Your task to perform on an android device: Open sound settings Image 0: 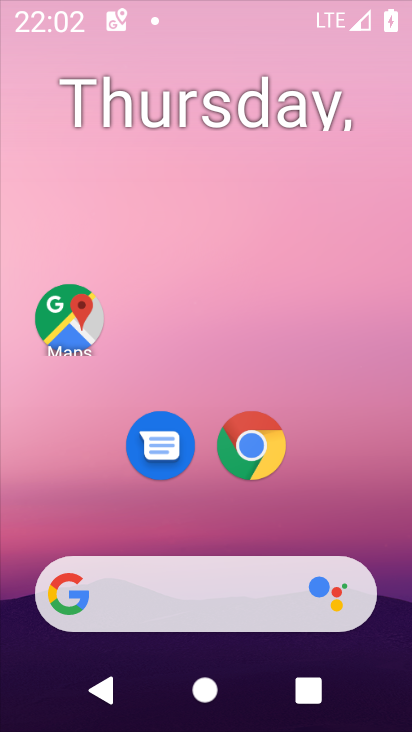
Step 0: drag from (197, 525) to (221, 173)
Your task to perform on an android device: Open sound settings Image 1: 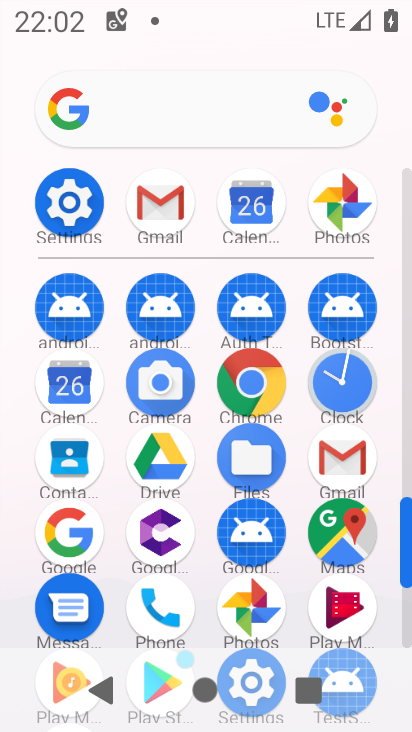
Step 1: drag from (205, 274) to (222, 56)
Your task to perform on an android device: Open sound settings Image 2: 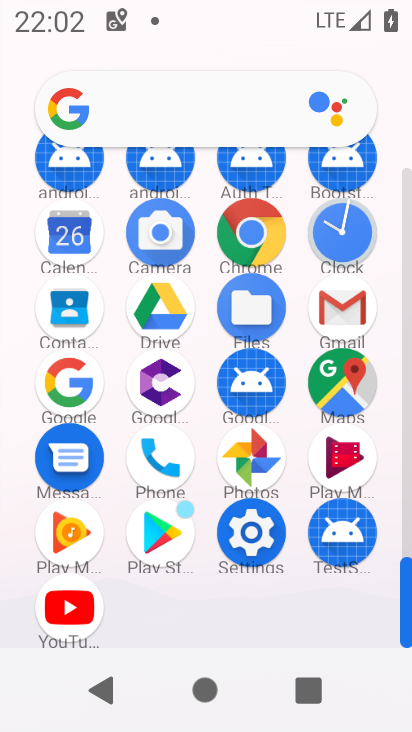
Step 2: click (249, 539)
Your task to perform on an android device: Open sound settings Image 3: 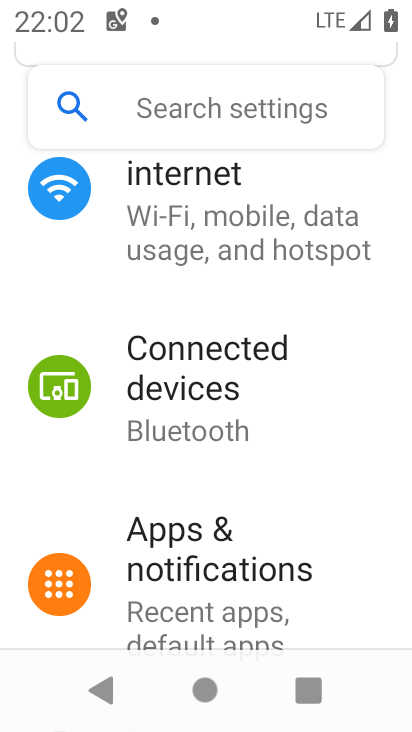
Step 3: drag from (225, 484) to (191, 74)
Your task to perform on an android device: Open sound settings Image 4: 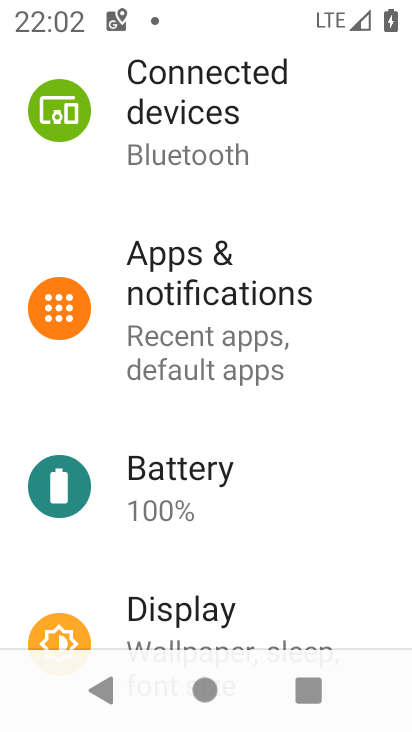
Step 4: drag from (180, 552) to (226, 177)
Your task to perform on an android device: Open sound settings Image 5: 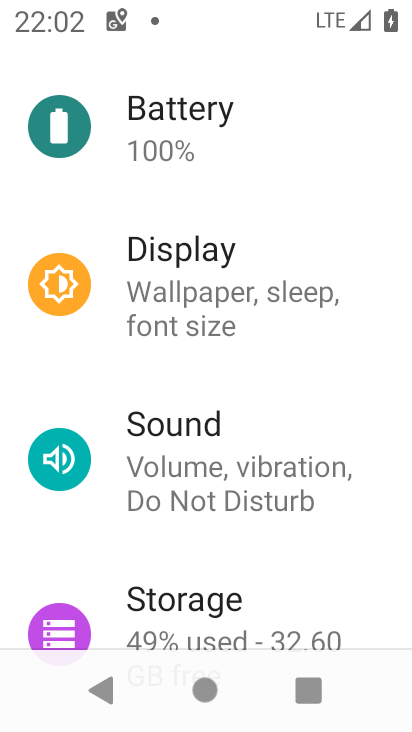
Step 5: click (214, 472)
Your task to perform on an android device: Open sound settings Image 6: 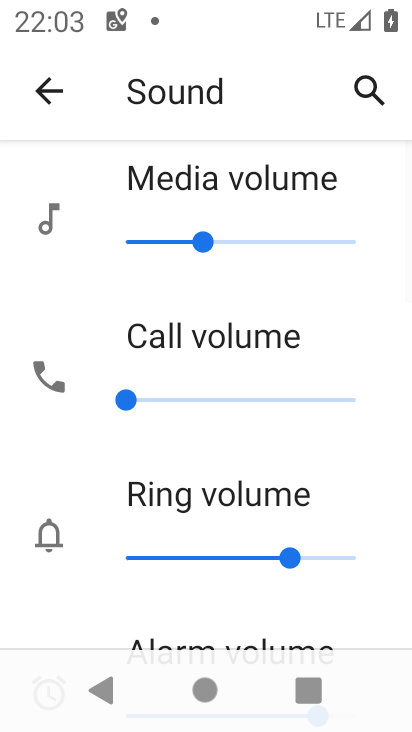
Step 6: task complete